Your task to perform on an android device: allow notifications from all sites in the chrome app Image 0: 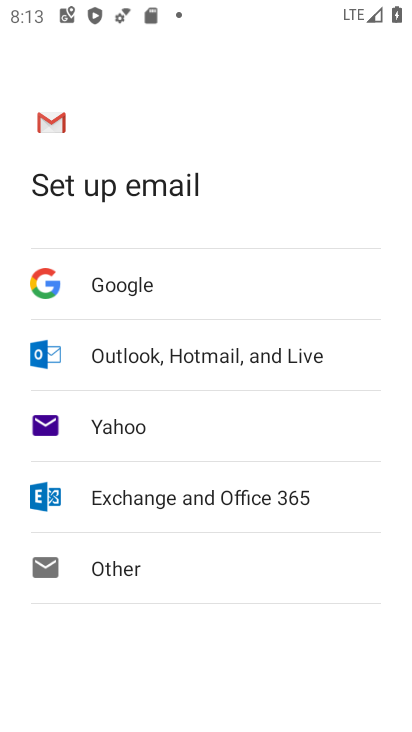
Step 0: press home button
Your task to perform on an android device: allow notifications from all sites in the chrome app Image 1: 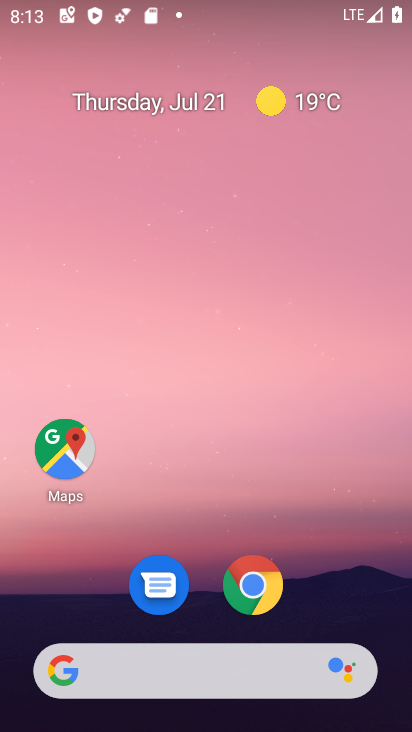
Step 1: click (263, 599)
Your task to perform on an android device: allow notifications from all sites in the chrome app Image 2: 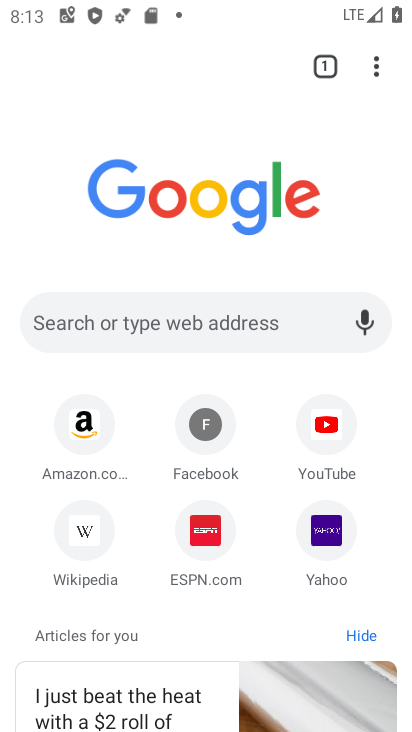
Step 2: click (376, 58)
Your task to perform on an android device: allow notifications from all sites in the chrome app Image 3: 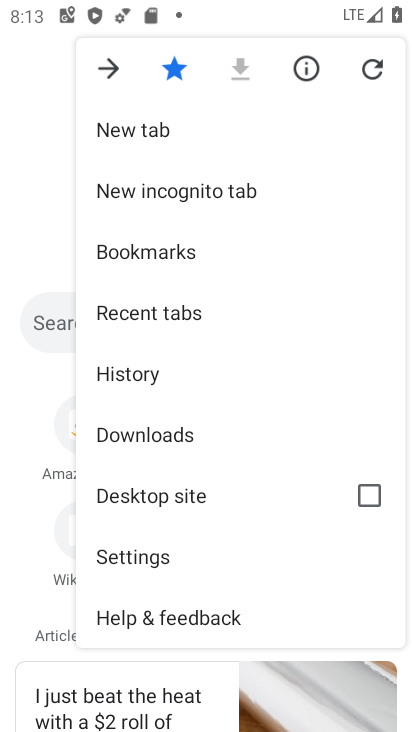
Step 3: click (160, 554)
Your task to perform on an android device: allow notifications from all sites in the chrome app Image 4: 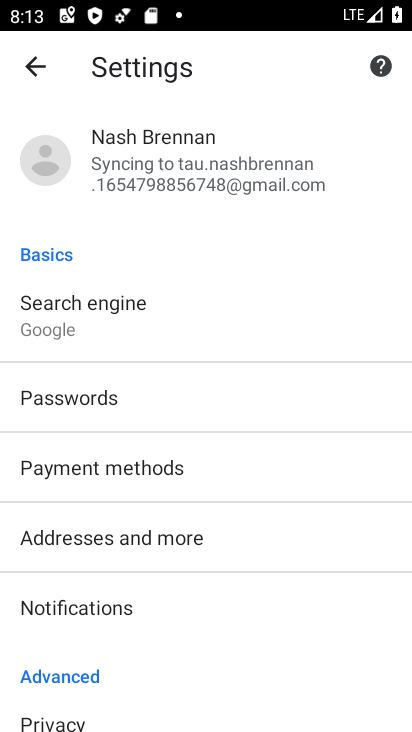
Step 4: click (127, 624)
Your task to perform on an android device: allow notifications from all sites in the chrome app Image 5: 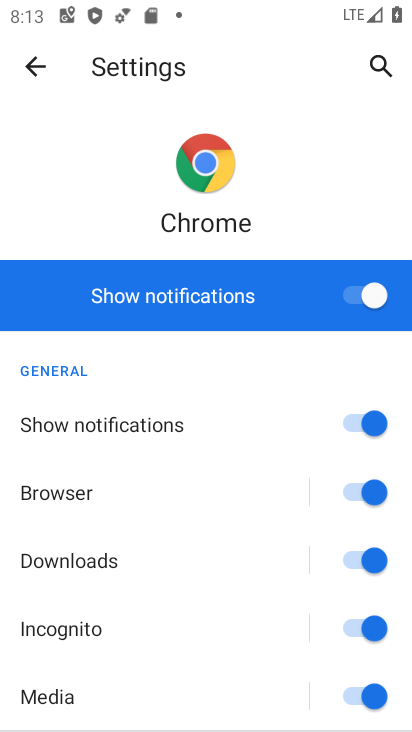
Step 5: task complete